Your task to perform on an android device: turn on data saver in the chrome app Image 0: 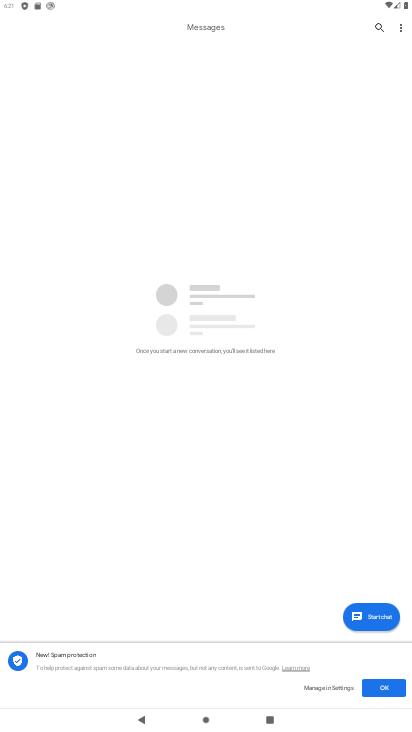
Step 0: press home button
Your task to perform on an android device: turn on data saver in the chrome app Image 1: 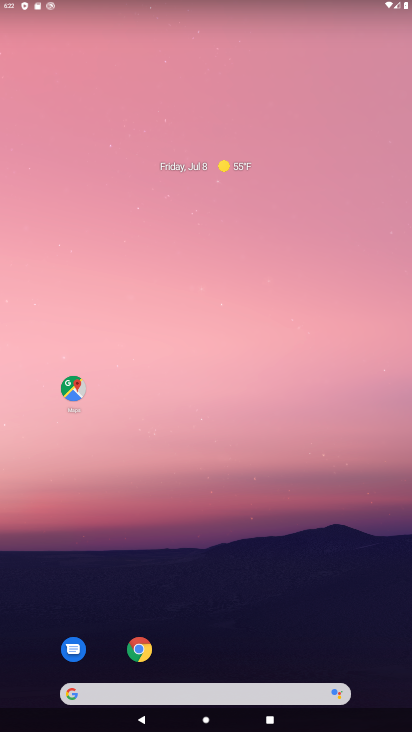
Step 1: drag from (227, 670) to (248, 23)
Your task to perform on an android device: turn on data saver in the chrome app Image 2: 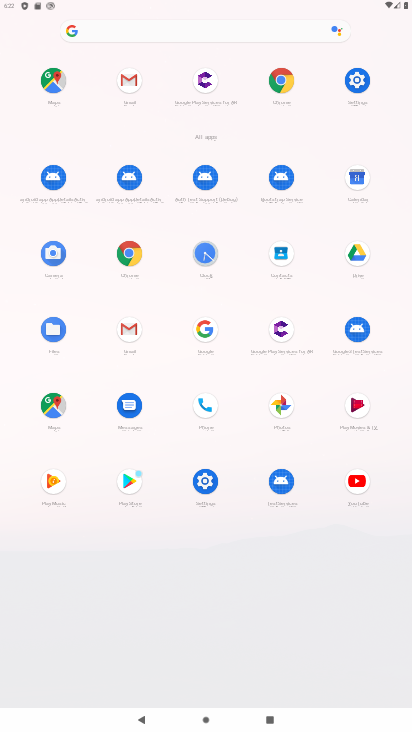
Step 2: click (121, 256)
Your task to perform on an android device: turn on data saver in the chrome app Image 3: 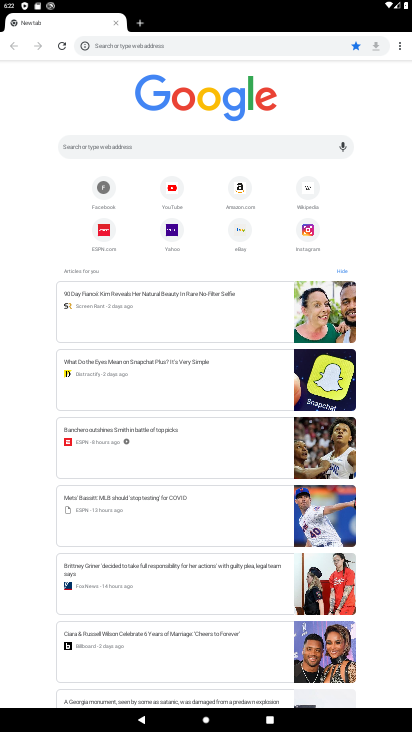
Step 3: drag from (398, 44) to (329, 216)
Your task to perform on an android device: turn on data saver in the chrome app Image 4: 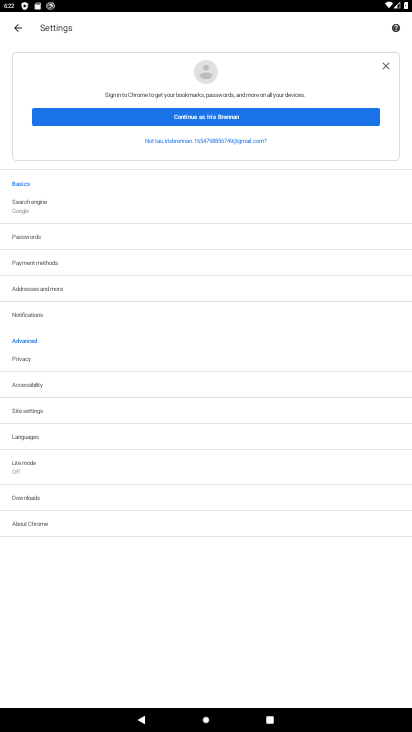
Step 4: click (29, 460)
Your task to perform on an android device: turn on data saver in the chrome app Image 5: 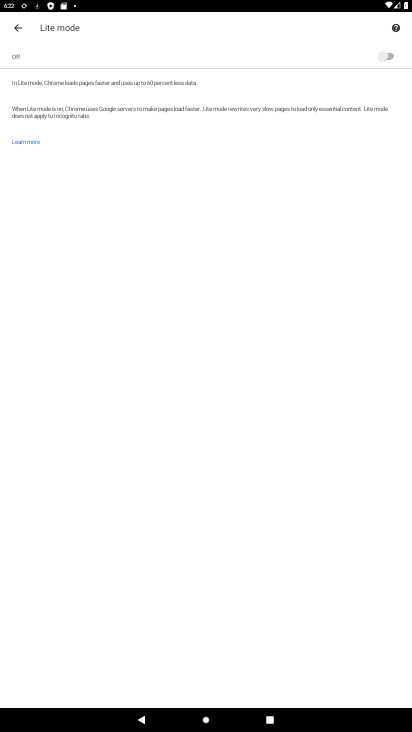
Step 5: click (384, 55)
Your task to perform on an android device: turn on data saver in the chrome app Image 6: 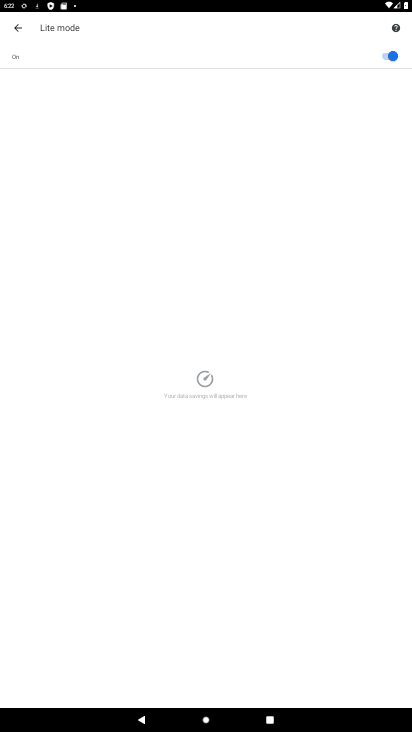
Step 6: task complete